Your task to perform on an android device: Open privacy settings Image 0: 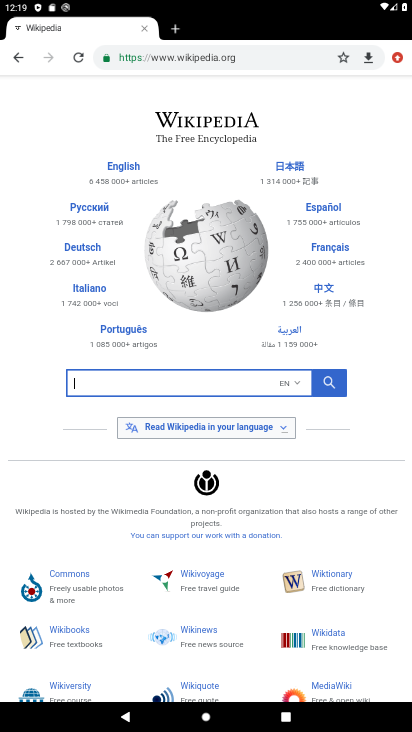
Step 0: press home button
Your task to perform on an android device: Open privacy settings Image 1: 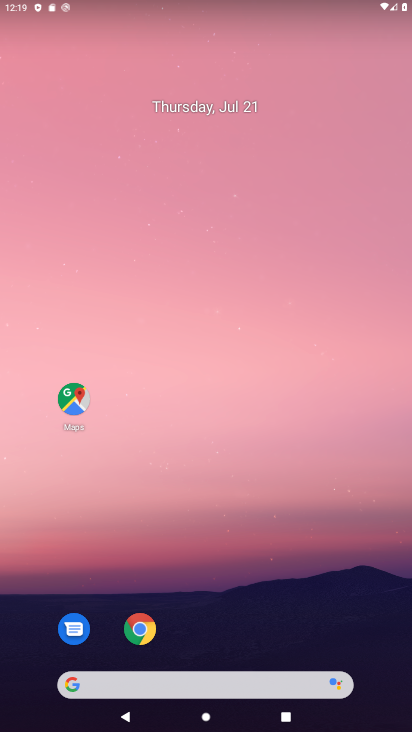
Step 1: drag from (324, 535) to (293, 86)
Your task to perform on an android device: Open privacy settings Image 2: 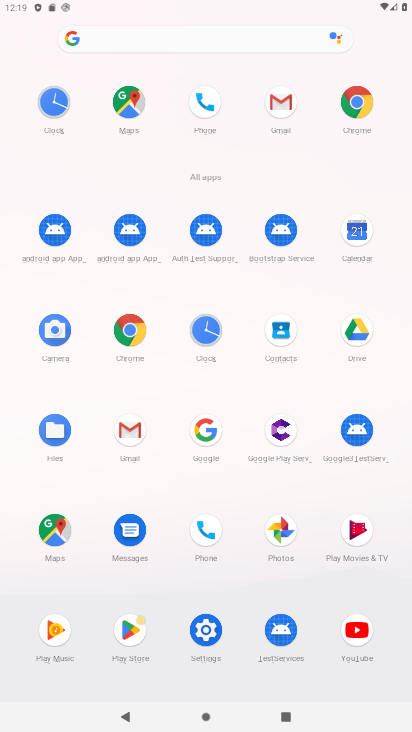
Step 2: click (212, 629)
Your task to perform on an android device: Open privacy settings Image 3: 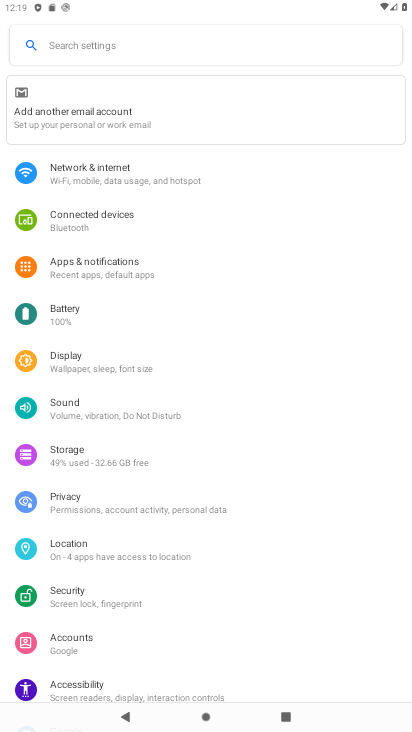
Step 3: click (52, 502)
Your task to perform on an android device: Open privacy settings Image 4: 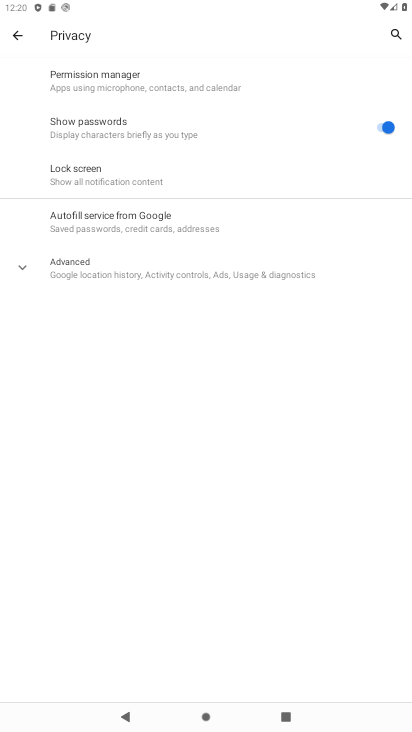
Step 4: task complete